Your task to perform on an android device: find photos in the google photos app Image 0: 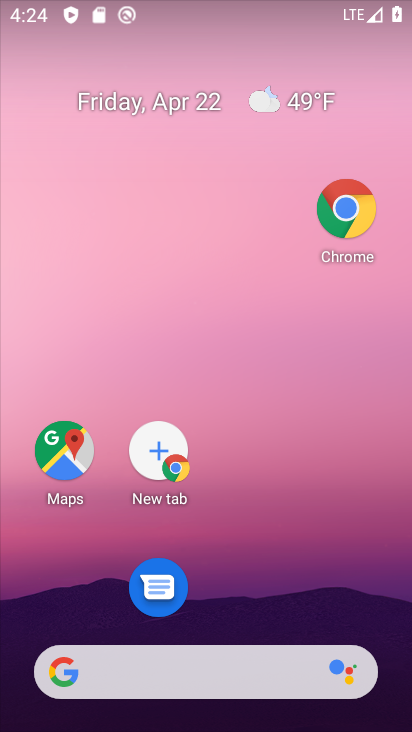
Step 0: drag from (260, 614) to (269, 99)
Your task to perform on an android device: find photos in the google photos app Image 1: 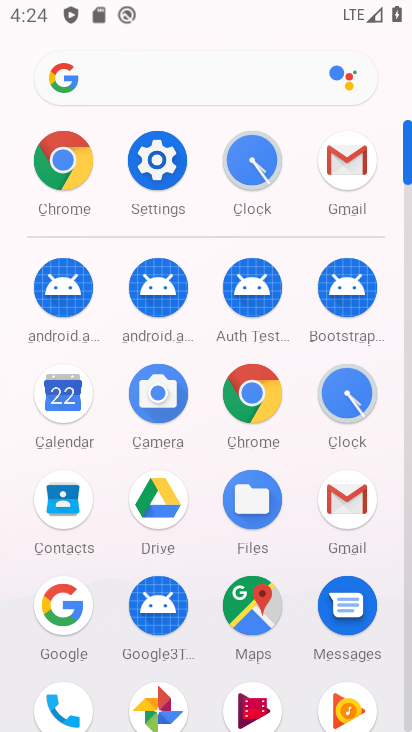
Step 1: click (175, 705)
Your task to perform on an android device: find photos in the google photos app Image 2: 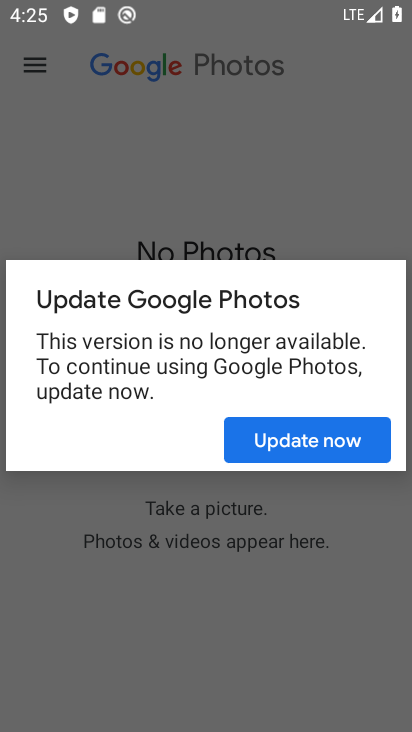
Step 2: click (294, 432)
Your task to perform on an android device: find photos in the google photos app Image 3: 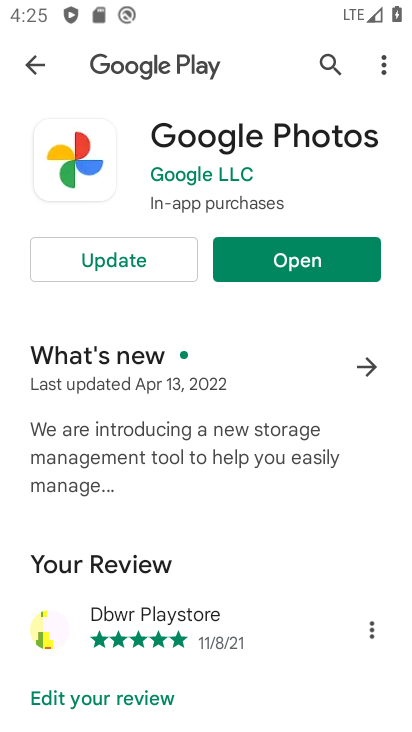
Step 3: click (318, 260)
Your task to perform on an android device: find photos in the google photos app Image 4: 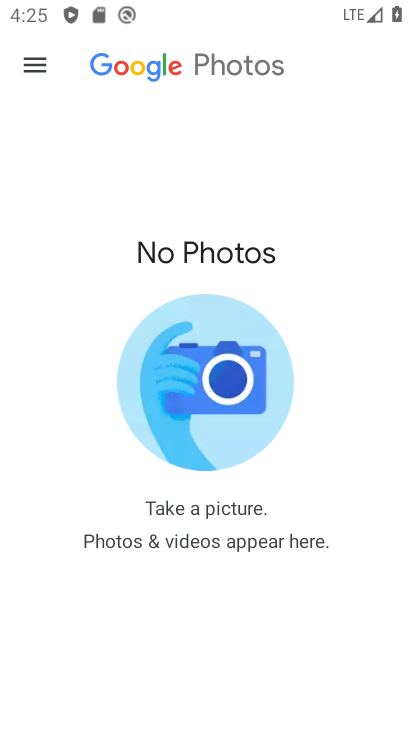
Step 4: click (32, 62)
Your task to perform on an android device: find photos in the google photos app Image 5: 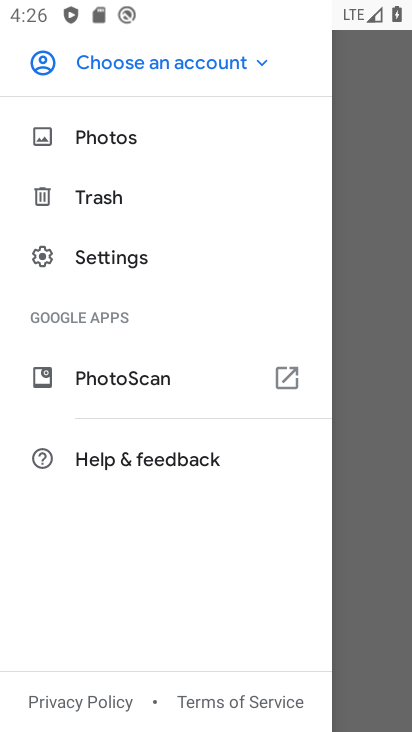
Step 5: click (83, 72)
Your task to perform on an android device: find photos in the google photos app Image 6: 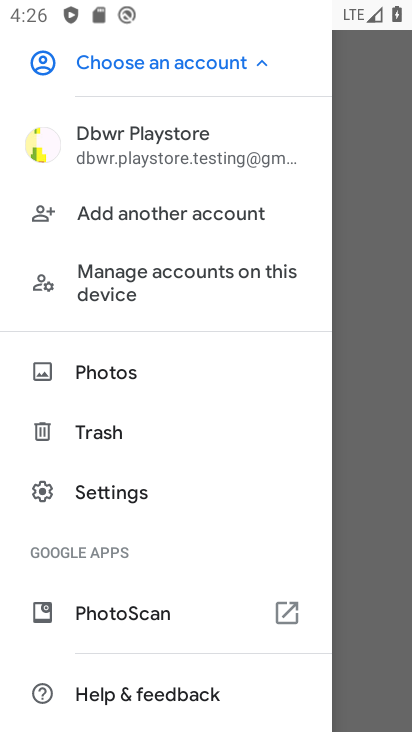
Step 6: click (103, 142)
Your task to perform on an android device: find photos in the google photos app Image 7: 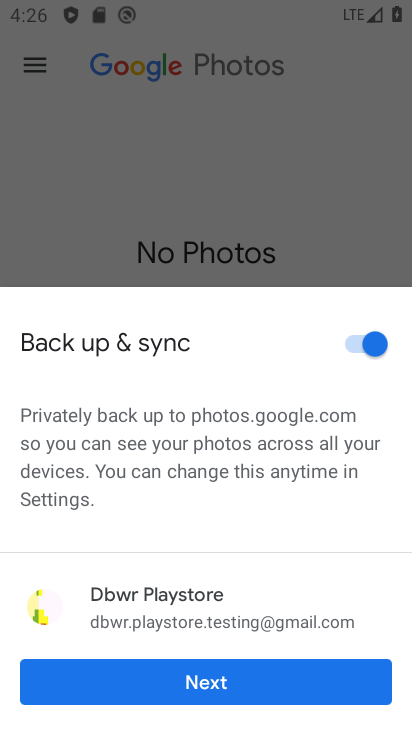
Step 7: click (180, 690)
Your task to perform on an android device: find photos in the google photos app Image 8: 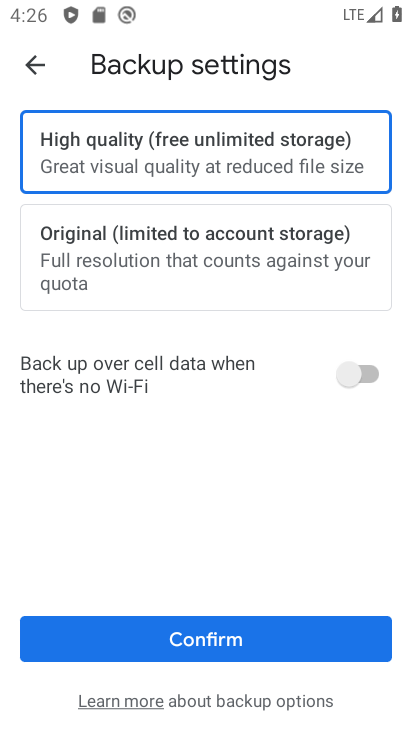
Step 8: click (341, 643)
Your task to perform on an android device: find photos in the google photos app Image 9: 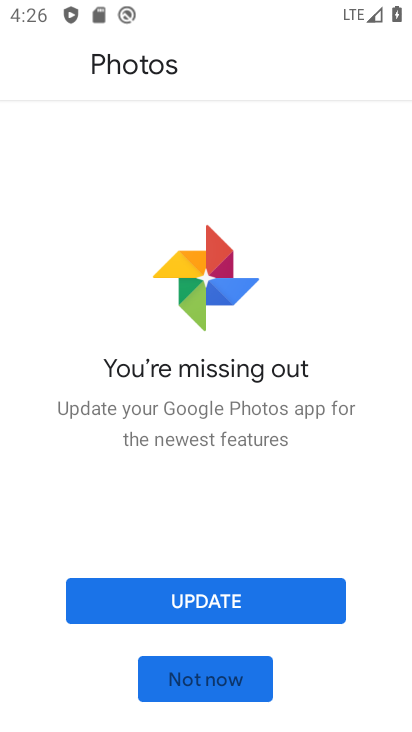
Step 9: click (226, 689)
Your task to perform on an android device: find photos in the google photos app Image 10: 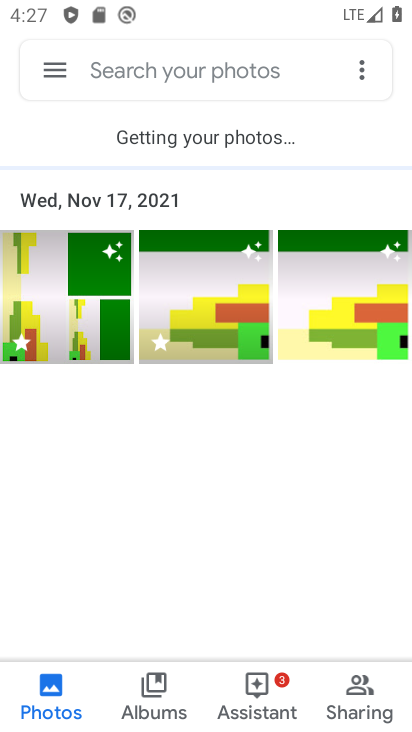
Step 10: task complete